Your task to perform on an android device: turn on data saver in the chrome app Image 0: 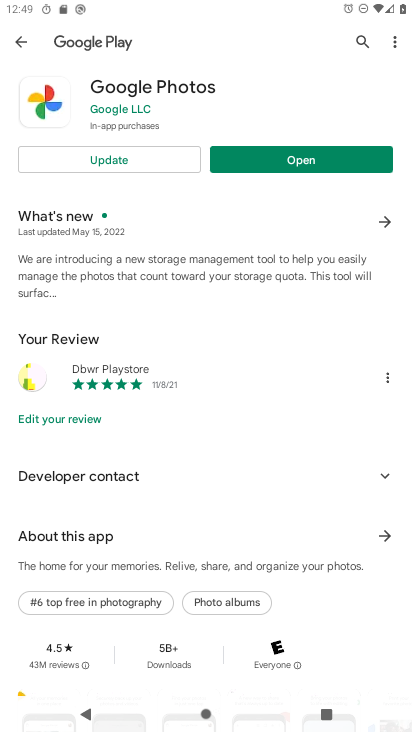
Step 0: press home button
Your task to perform on an android device: turn on data saver in the chrome app Image 1: 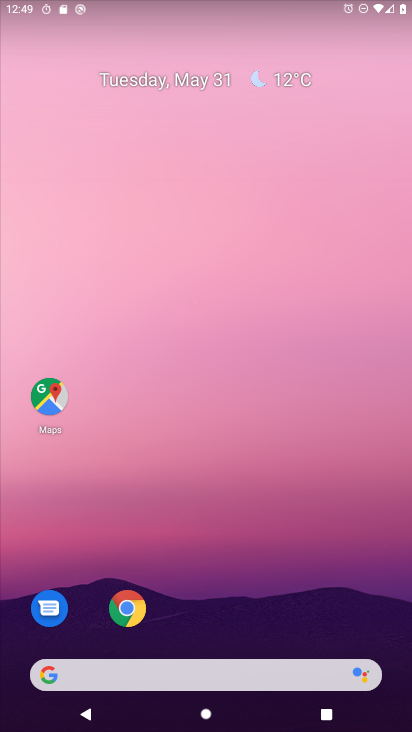
Step 1: click (130, 611)
Your task to perform on an android device: turn on data saver in the chrome app Image 2: 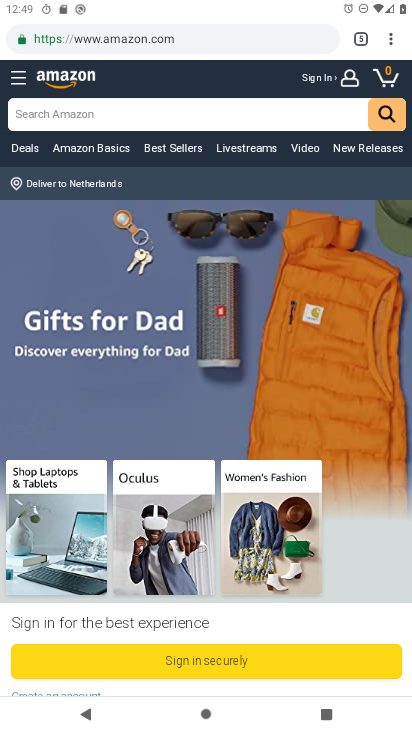
Step 2: click (391, 41)
Your task to perform on an android device: turn on data saver in the chrome app Image 3: 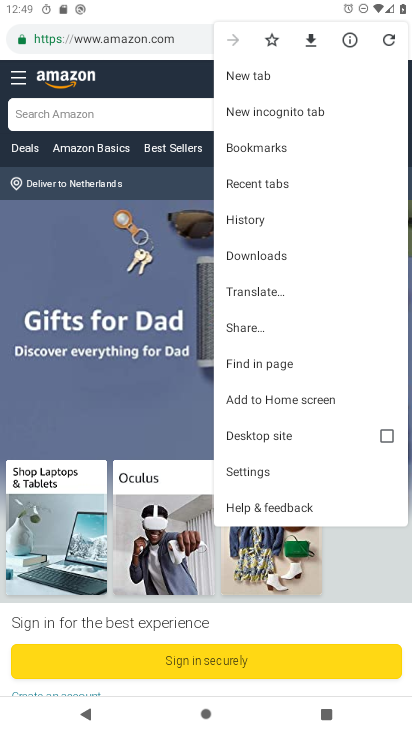
Step 3: click (251, 468)
Your task to perform on an android device: turn on data saver in the chrome app Image 4: 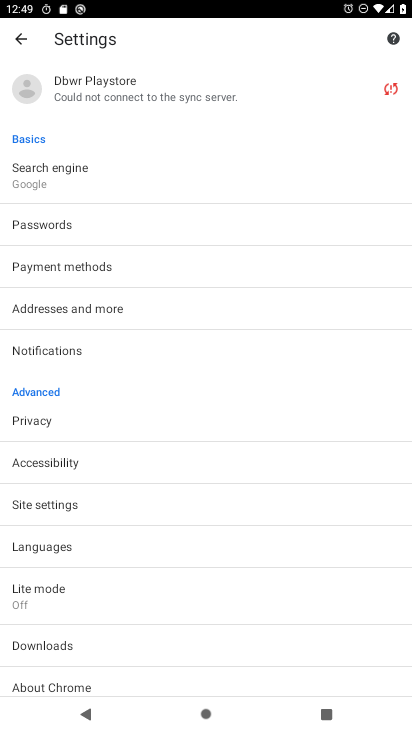
Step 4: click (53, 586)
Your task to perform on an android device: turn on data saver in the chrome app Image 5: 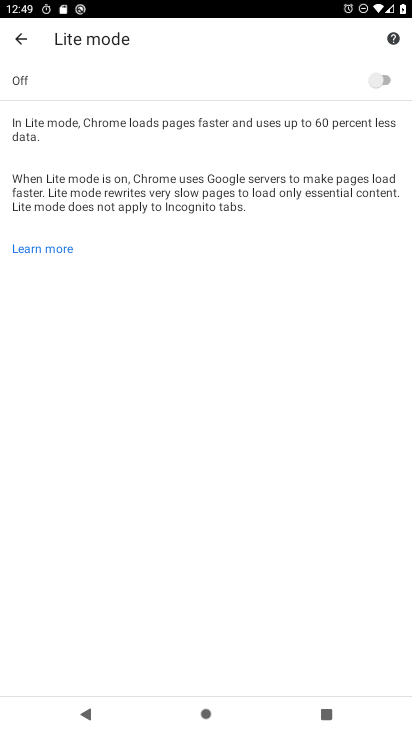
Step 5: click (373, 85)
Your task to perform on an android device: turn on data saver in the chrome app Image 6: 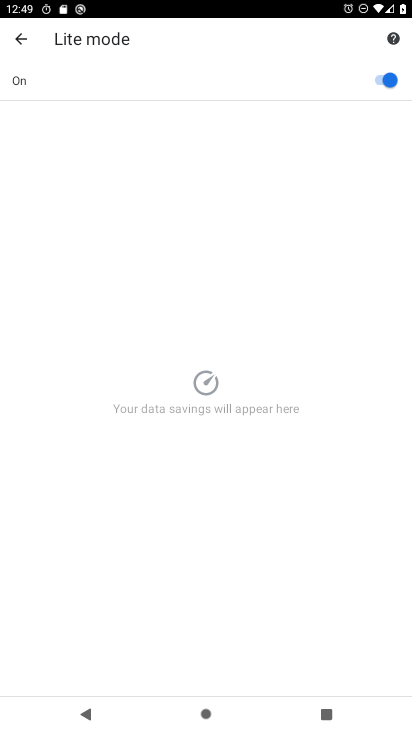
Step 6: task complete